Your task to perform on an android device: Go to display settings Image 0: 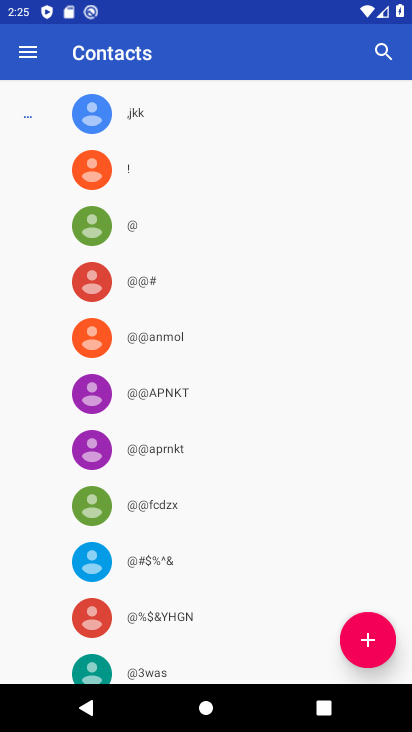
Step 0: press home button
Your task to perform on an android device: Go to display settings Image 1: 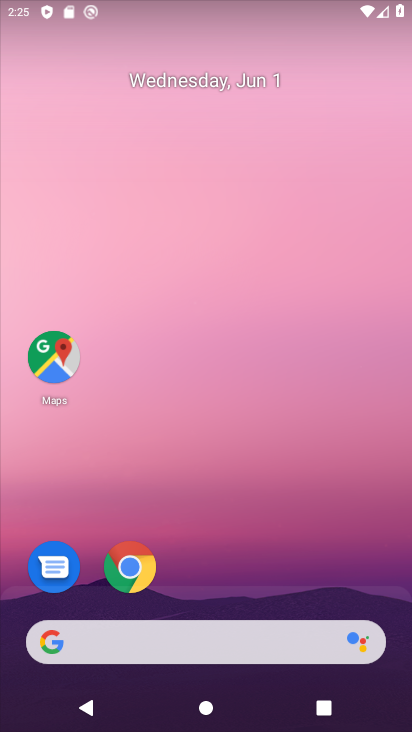
Step 1: drag from (152, 731) to (45, 81)
Your task to perform on an android device: Go to display settings Image 2: 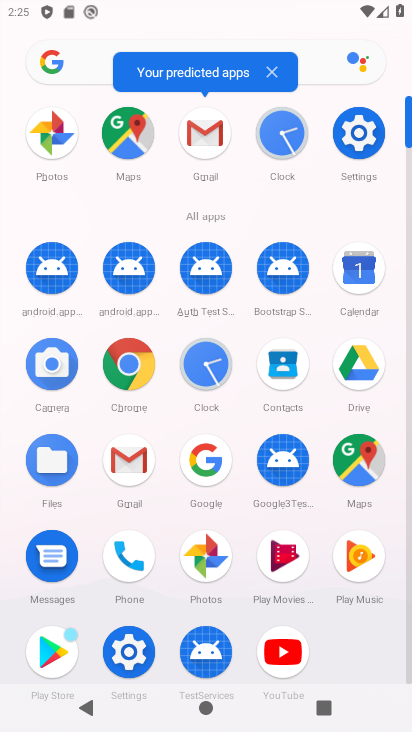
Step 2: click (361, 136)
Your task to perform on an android device: Go to display settings Image 3: 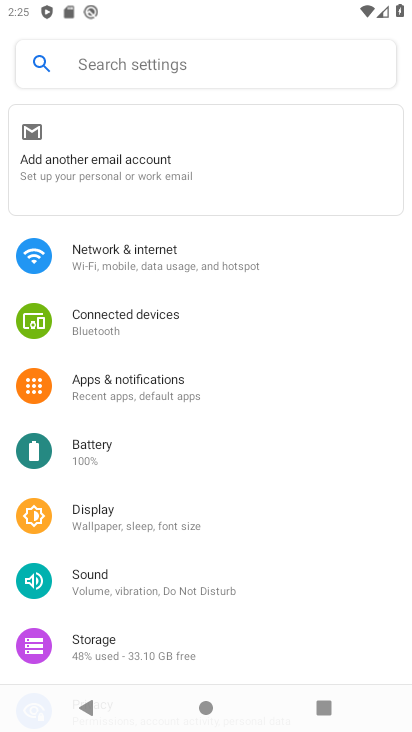
Step 3: click (200, 527)
Your task to perform on an android device: Go to display settings Image 4: 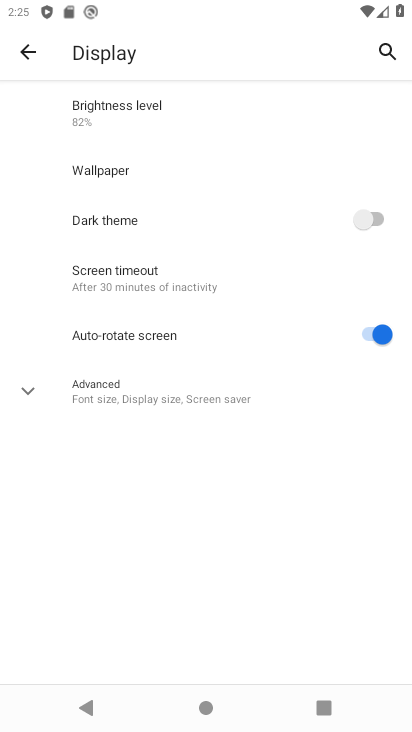
Step 4: task complete